Your task to perform on an android device: Go to wifi settings Image 0: 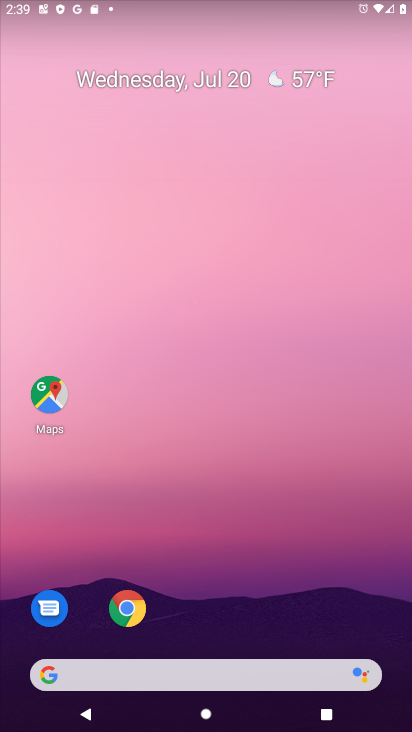
Step 0: drag from (215, 590) to (202, 172)
Your task to perform on an android device: Go to wifi settings Image 1: 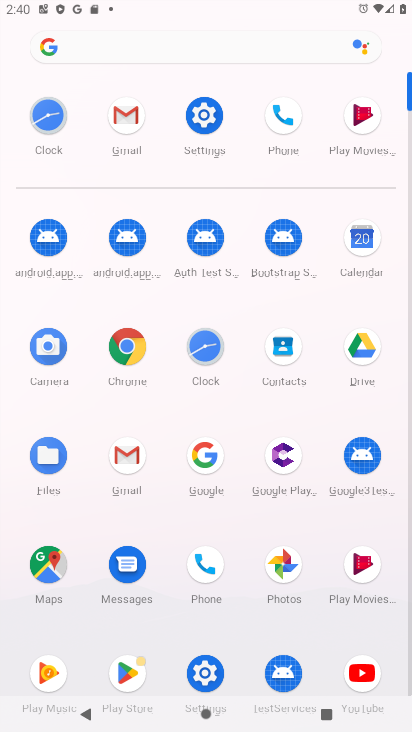
Step 1: click (204, 110)
Your task to perform on an android device: Go to wifi settings Image 2: 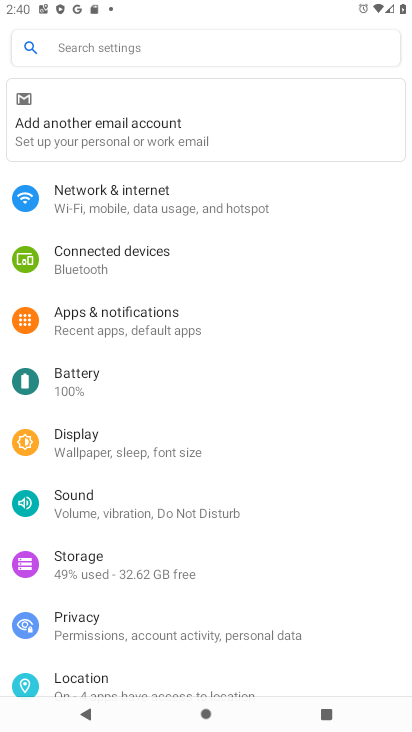
Step 2: click (130, 193)
Your task to perform on an android device: Go to wifi settings Image 3: 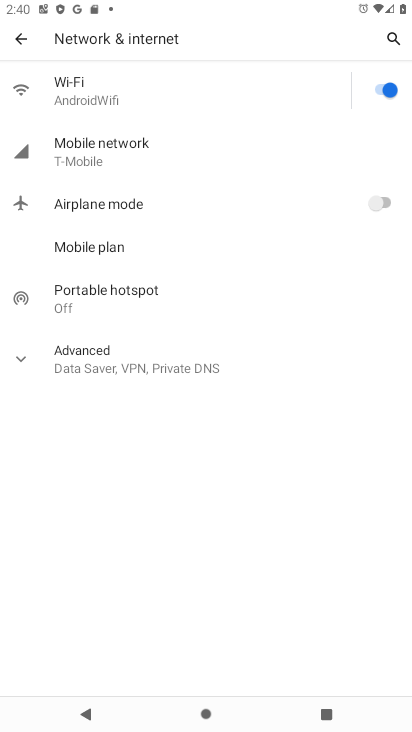
Step 3: click (83, 93)
Your task to perform on an android device: Go to wifi settings Image 4: 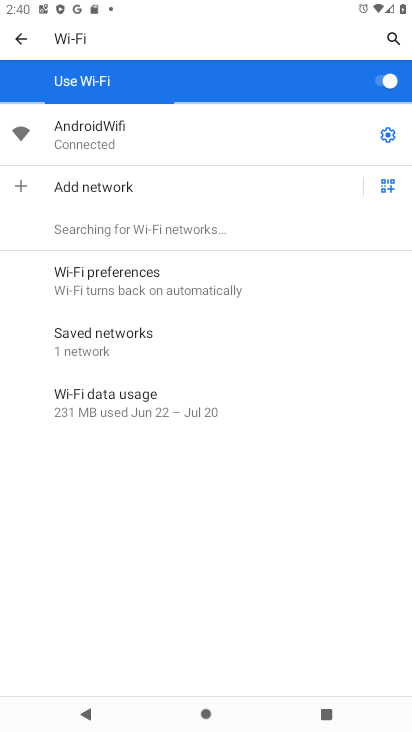
Step 4: task complete